Your task to perform on an android device: toggle priority inbox in the gmail app Image 0: 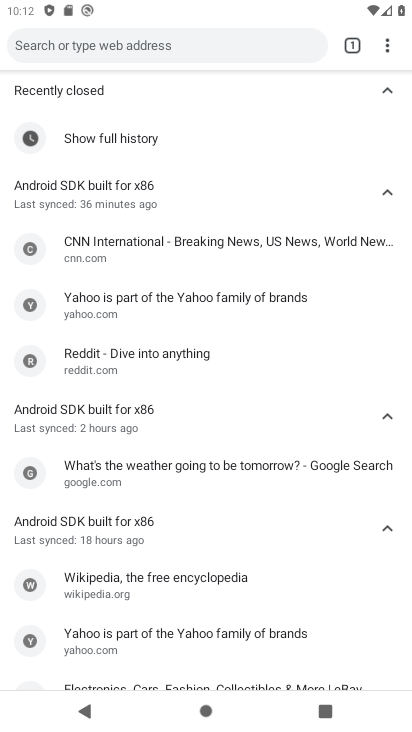
Step 0: press home button
Your task to perform on an android device: toggle priority inbox in the gmail app Image 1: 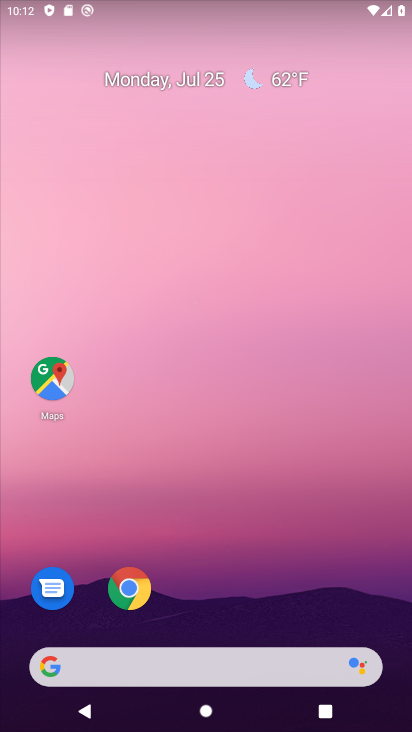
Step 1: drag from (190, 575) to (246, 165)
Your task to perform on an android device: toggle priority inbox in the gmail app Image 2: 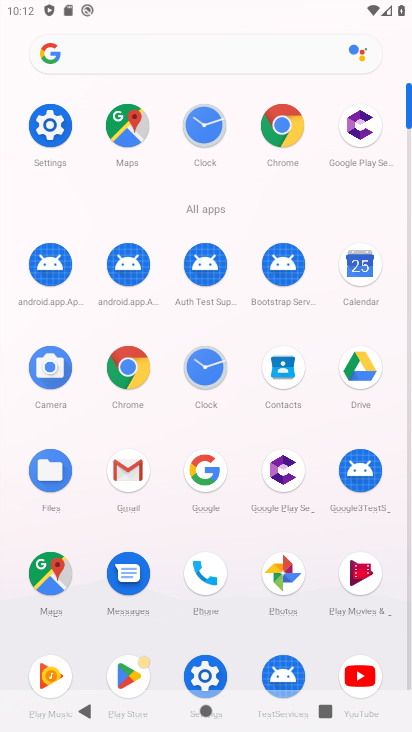
Step 2: click (137, 480)
Your task to perform on an android device: toggle priority inbox in the gmail app Image 3: 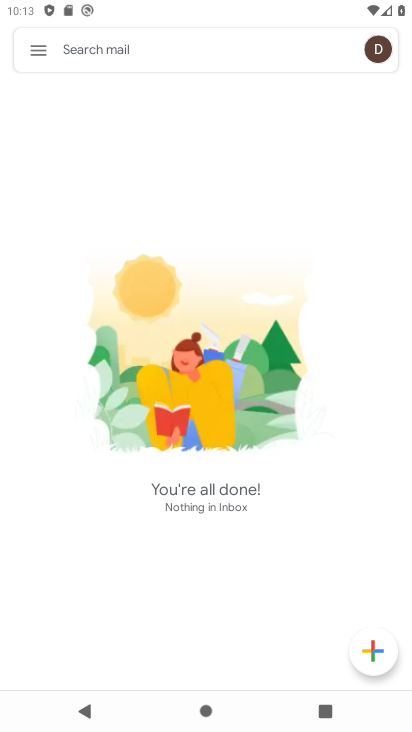
Step 3: click (33, 53)
Your task to perform on an android device: toggle priority inbox in the gmail app Image 4: 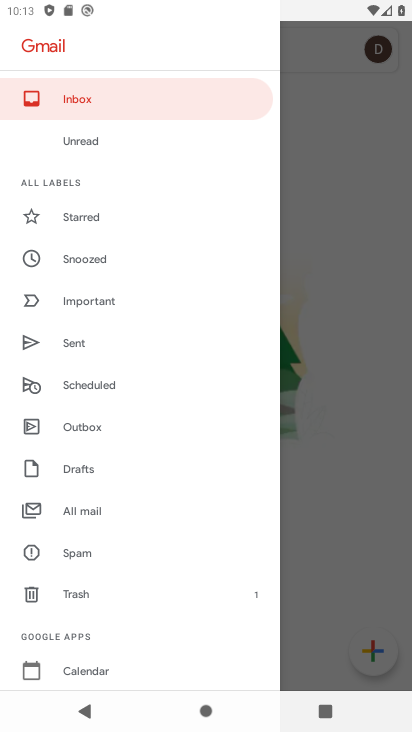
Step 4: drag from (116, 434) to (168, 177)
Your task to perform on an android device: toggle priority inbox in the gmail app Image 5: 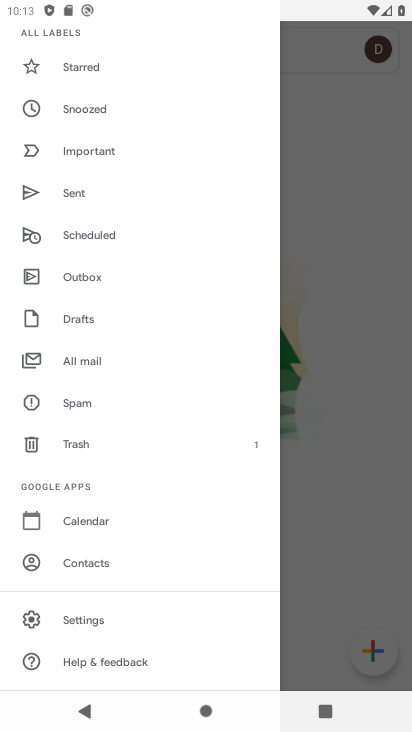
Step 5: click (95, 624)
Your task to perform on an android device: toggle priority inbox in the gmail app Image 6: 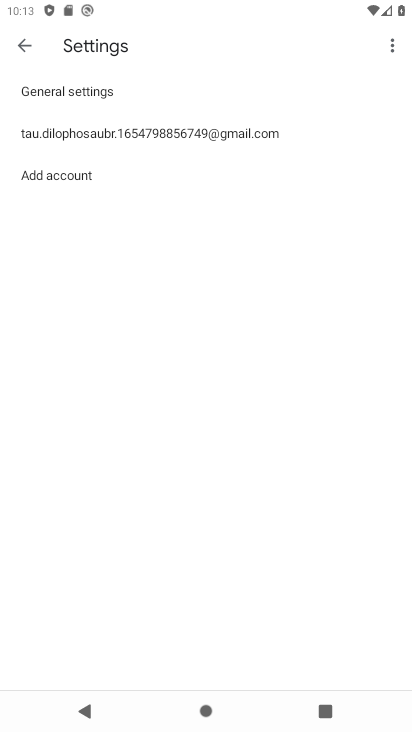
Step 6: click (185, 134)
Your task to perform on an android device: toggle priority inbox in the gmail app Image 7: 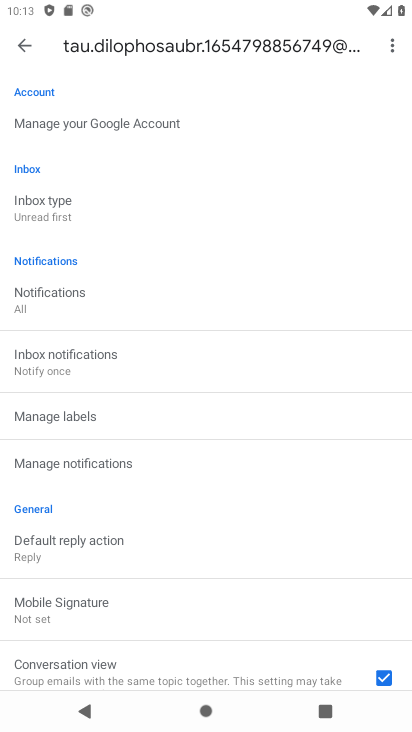
Step 7: click (111, 206)
Your task to perform on an android device: toggle priority inbox in the gmail app Image 8: 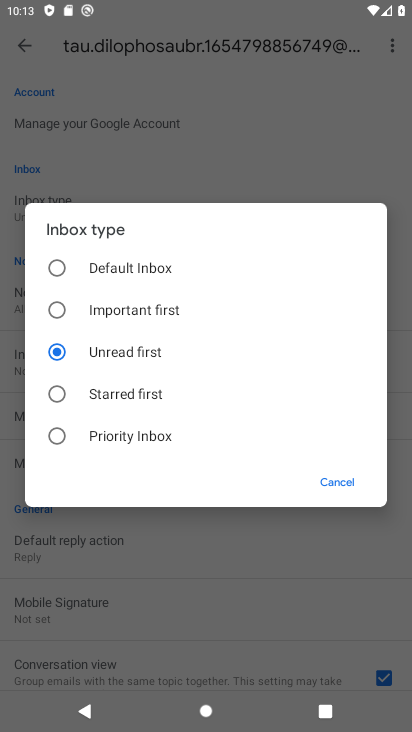
Step 8: click (84, 432)
Your task to perform on an android device: toggle priority inbox in the gmail app Image 9: 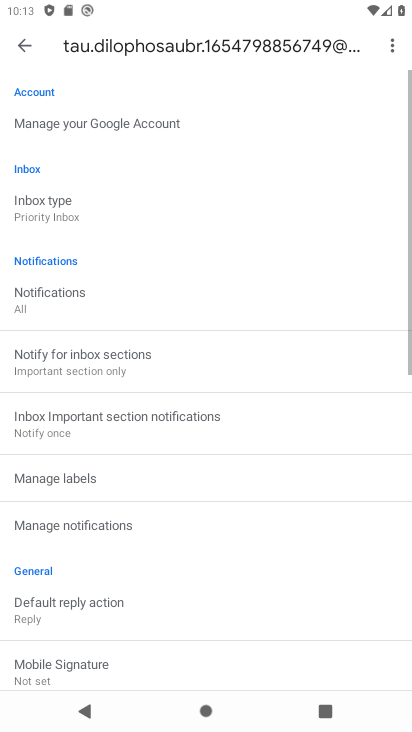
Step 9: task complete